Your task to perform on an android device: turn off data saver in the chrome app Image 0: 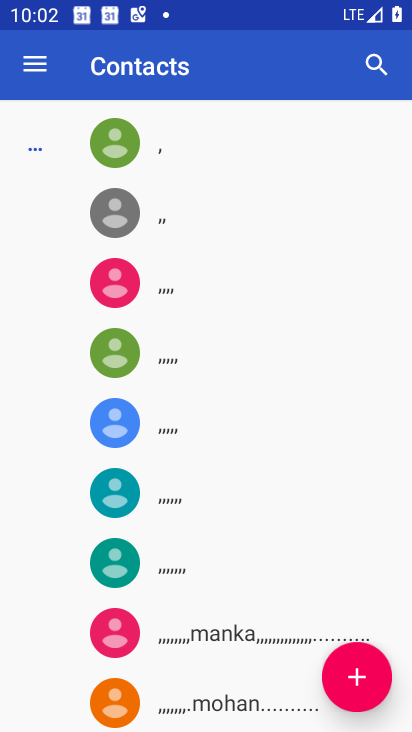
Step 0: press home button
Your task to perform on an android device: turn off data saver in the chrome app Image 1: 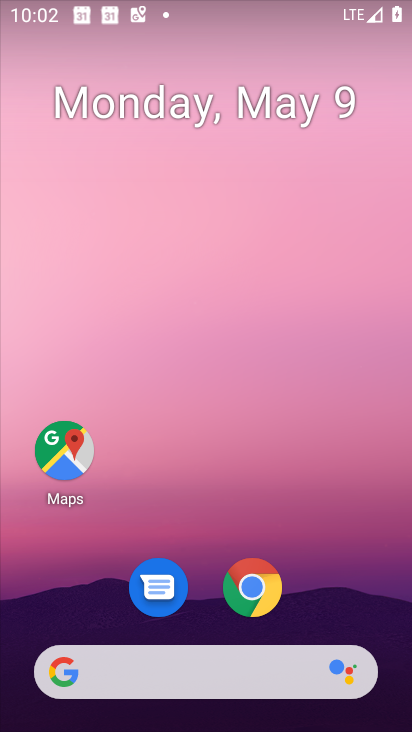
Step 1: click (250, 590)
Your task to perform on an android device: turn off data saver in the chrome app Image 2: 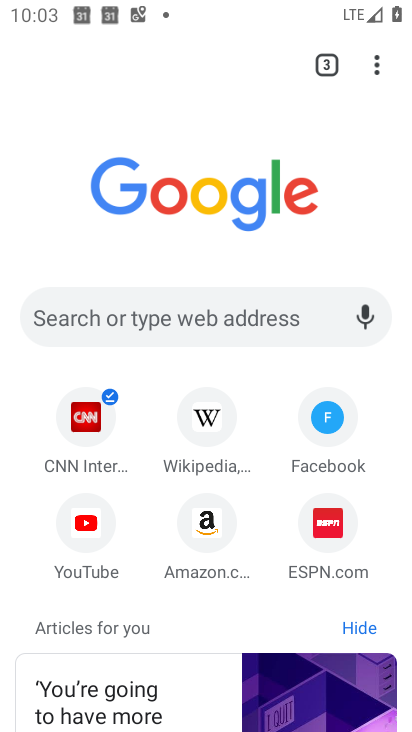
Step 2: click (389, 59)
Your task to perform on an android device: turn off data saver in the chrome app Image 3: 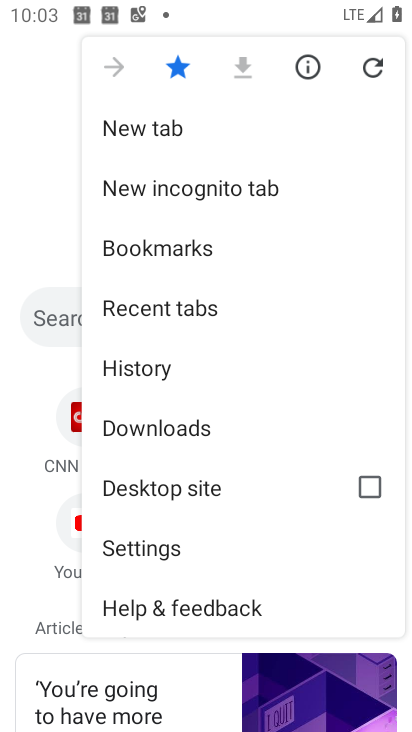
Step 3: click (155, 549)
Your task to perform on an android device: turn off data saver in the chrome app Image 4: 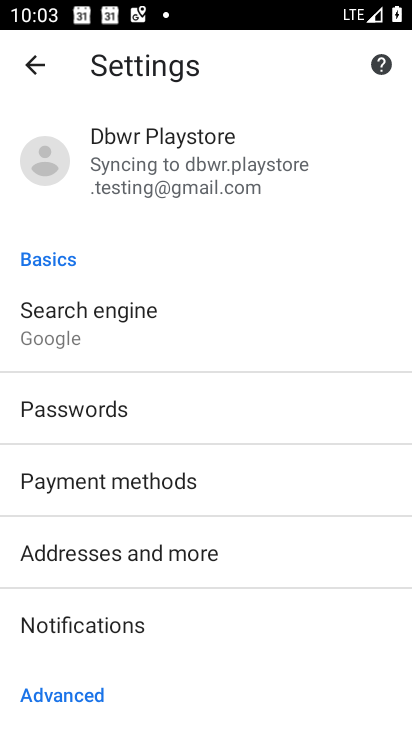
Step 4: drag from (203, 710) to (254, 217)
Your task to perform on an android device: turn off data saver in the chrome app Image 5: 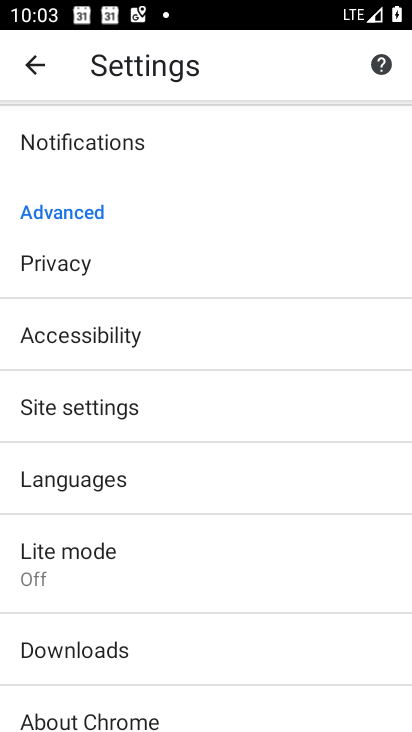
Step 5: drag from (133, 637) to (193, 265)
Your task to perform on an android device: turn off data saver in the chrome app Image 6: 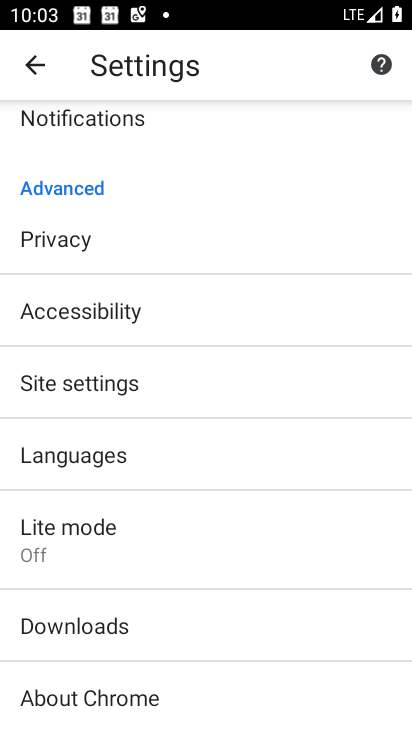
Step 6: drag from (189, 685) to (241, 524)
Your task to perform on an android device: turn off data saver in the chrome app Image 7: 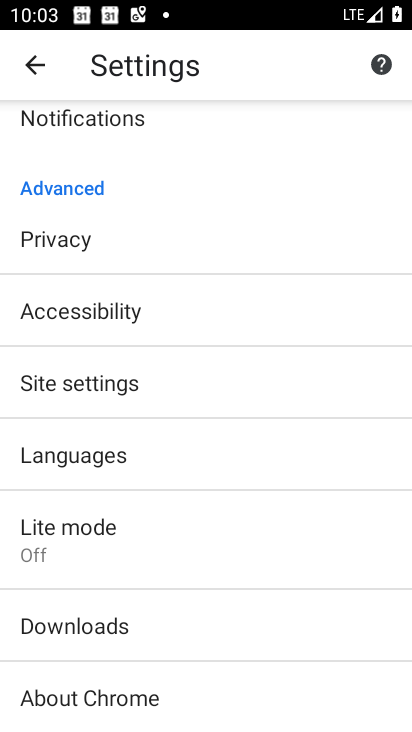
Step 7: click (97, 561)
Your task to perform on an android device: turn off data saver in the chrome app Image 8: 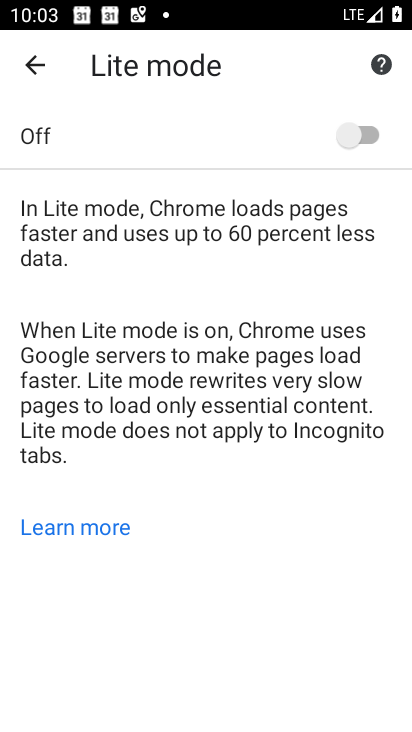
Step 8: task complete